Your task to perform on an android device: Open privacy settings Image 0: 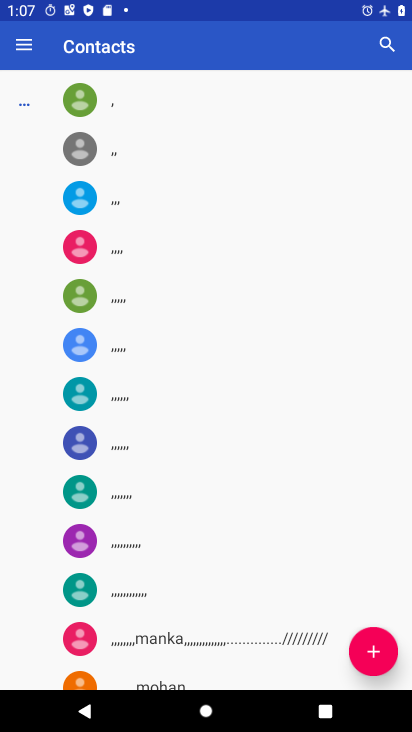
Step 0: press home button
Your task to perform on an android device: Open privacy settings Image 1: 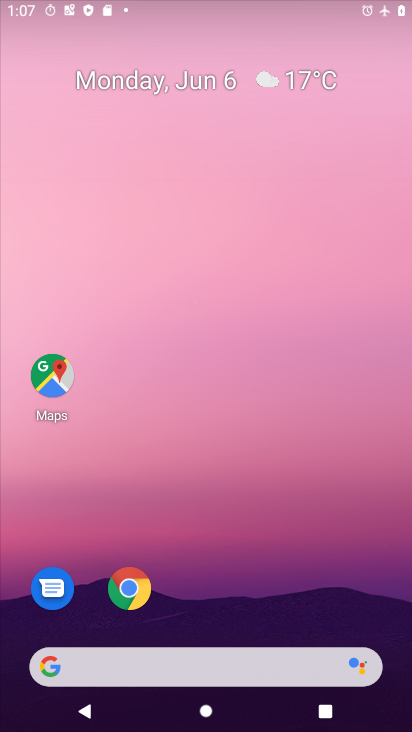
Step 1: drag from (330, 465) to (322, 136)
Your task to perform on an android device: Open privacy settings Image 2: 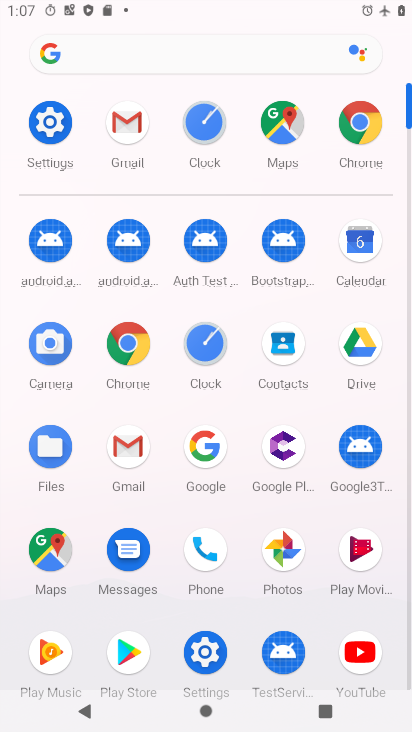
Step 2: click (41, 124)
Your task to perform on an android device: Open privacy settings Image 3: 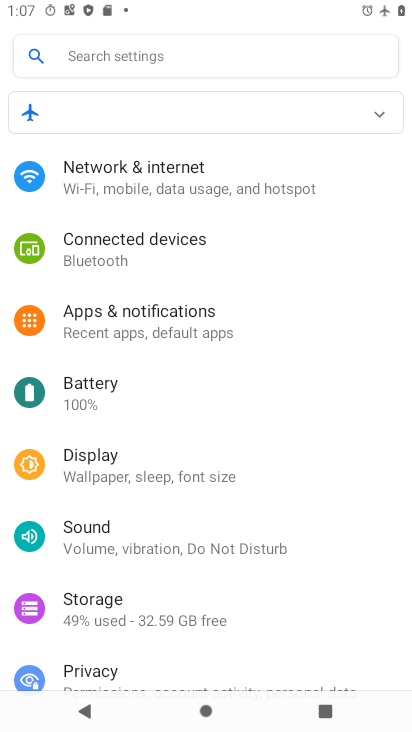
Step 3: drag from (178, 583) to (264, 118)
Your task to perform on an android device: Open privacy settings Image 4: 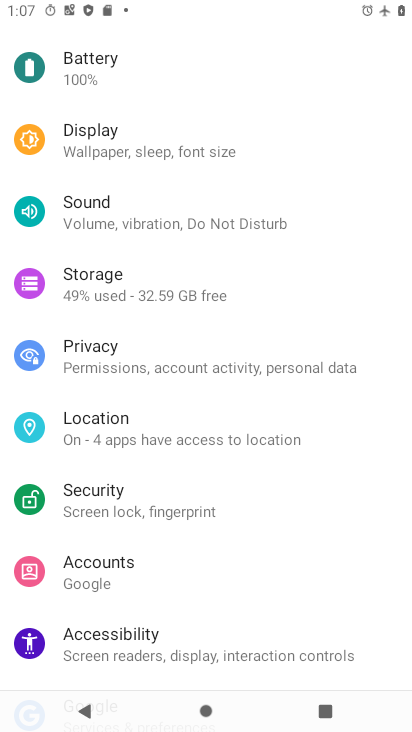
Step 4: click (128, 358)
Your task to perform on an android device: Open privacy settings Image 5: 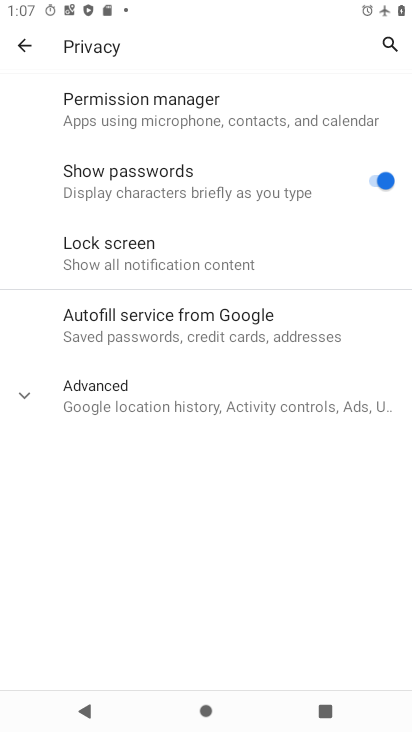
Step 5: task complete